Your task to perform on an android device: choose inbox layout in the gmail app Image 0: 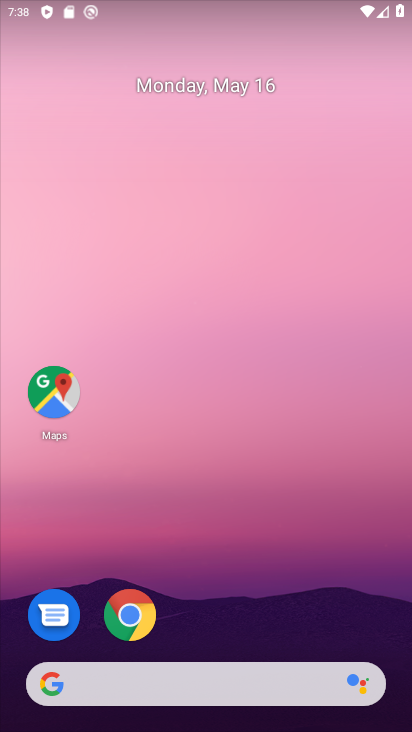
Step 0: drag from (236, 662) to (342, 212)
Your task to perform on an android device: choose inbox layout in the gmail app Image 1: 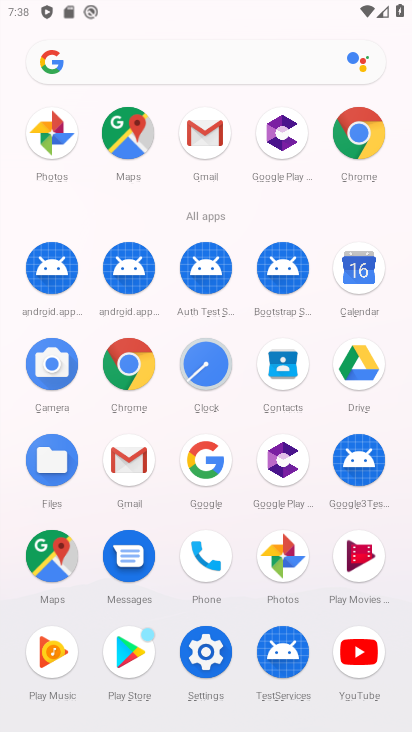
Step 1: click (141, 466)
Your task to perform on an android device: choose inbox layout in the gmail app Image 2: 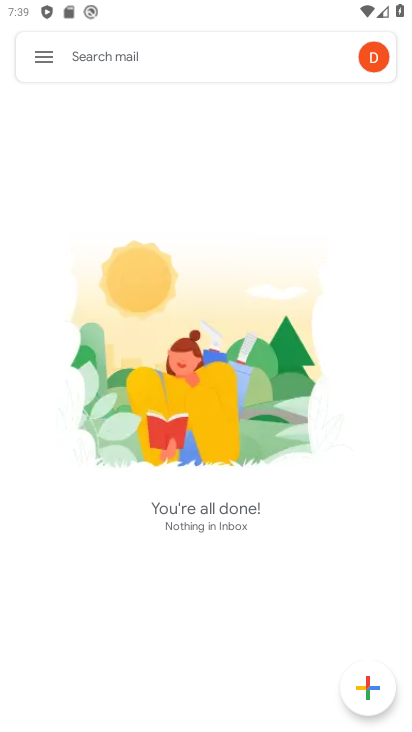
Step 2: click (46, 55)
Your task to perform on an android device: choose inbox layout in the gmail app Image 3: 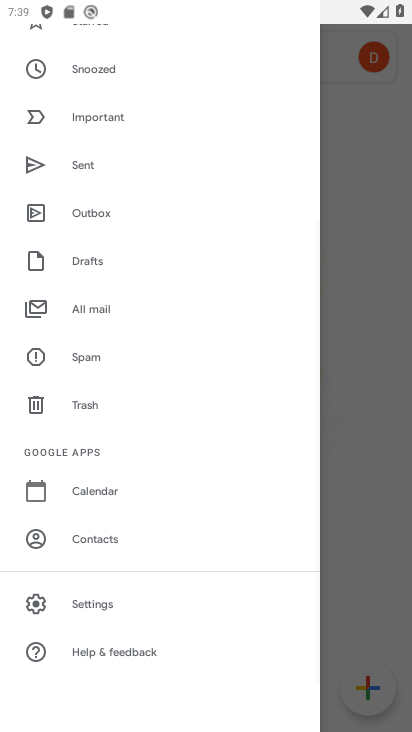
Step 3: click (101, 596)
Your task to perform on an android device: choose inbox layout in the gmail app Image 4: 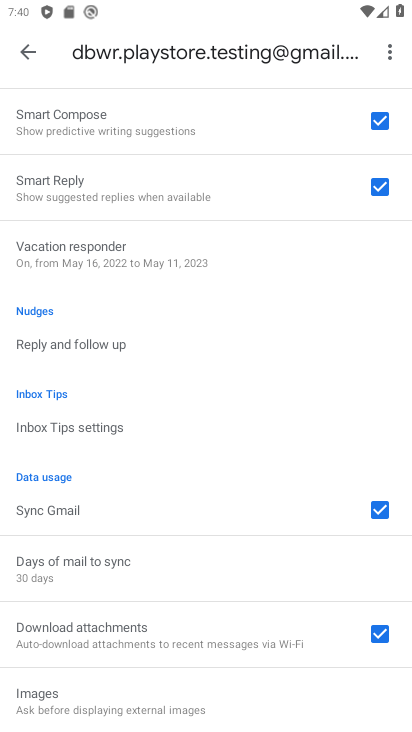
Step 4: task complete